Your task to perform on an android device: open sync settings in chrome Image 0: 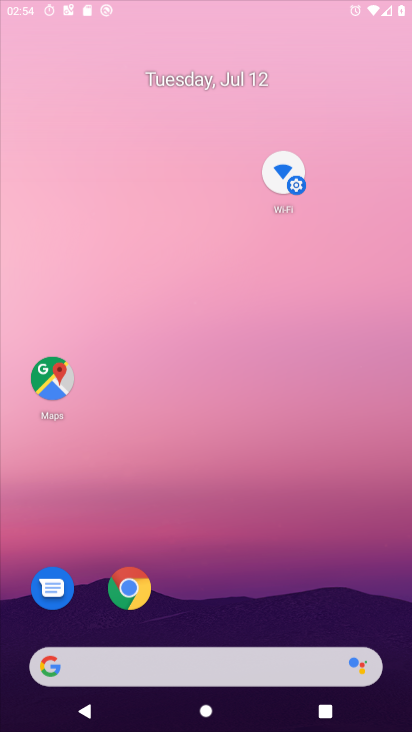
Step 0: click (202, 62)
Your task to perform on an android device: open sync settings in chrome Image 1: 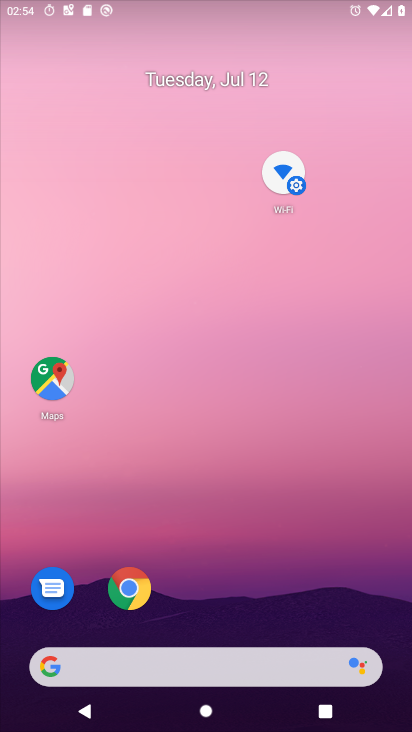
Step 1: drag from (174, 611) to (255, 148)
Your task to perform on an android device: open sync settings in chrome Image 2: 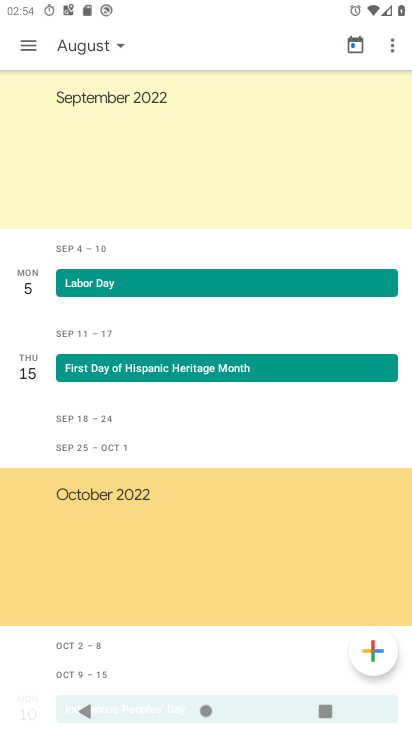
Step 2: press home button
Your task to perform on an android device: open sync settings in chrome Image 3: 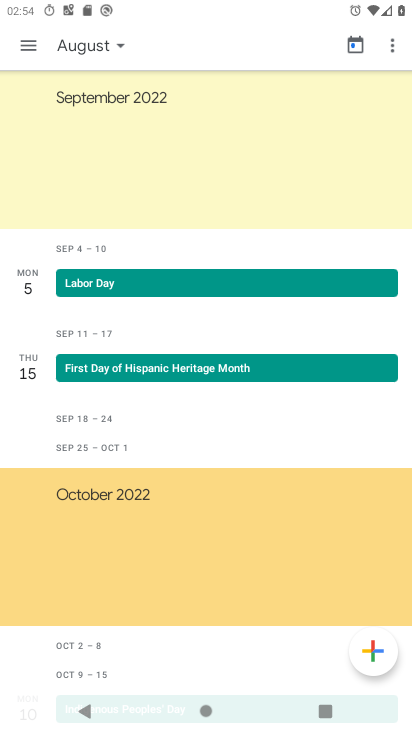
Step 3: drag from (168, 543) to (226, 120)
Your task to perform on an android device: open sync settings in chrome Image 4: 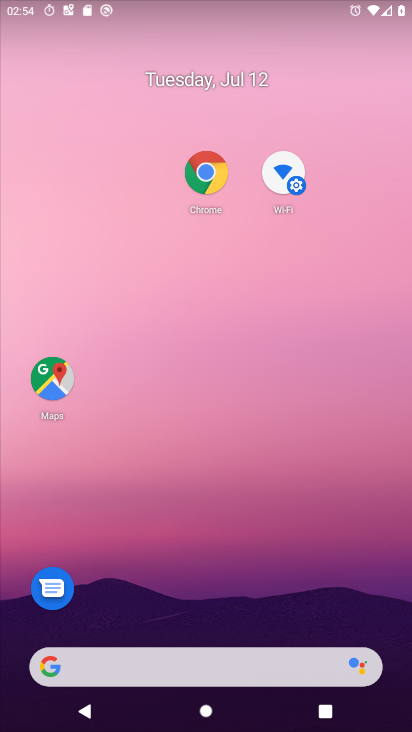
Step 4: drag from (228, 661) to (245, 206)
Your task to perform on an android device: open sync settings in chrome Image 5: 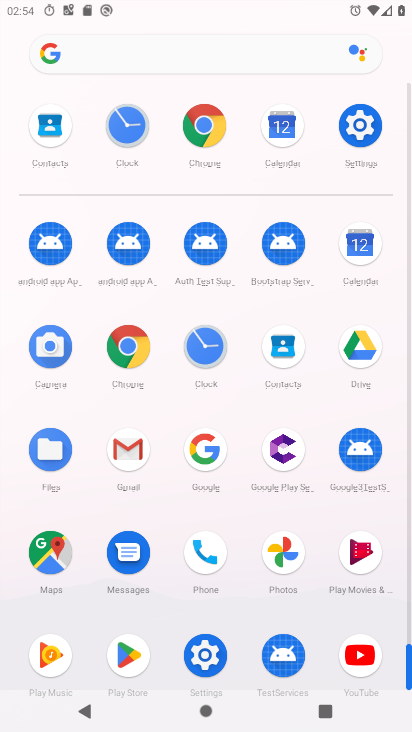
Step 5: click (127, 346)
Your task to perform on an android device: open sync settings in chrome Image 6: 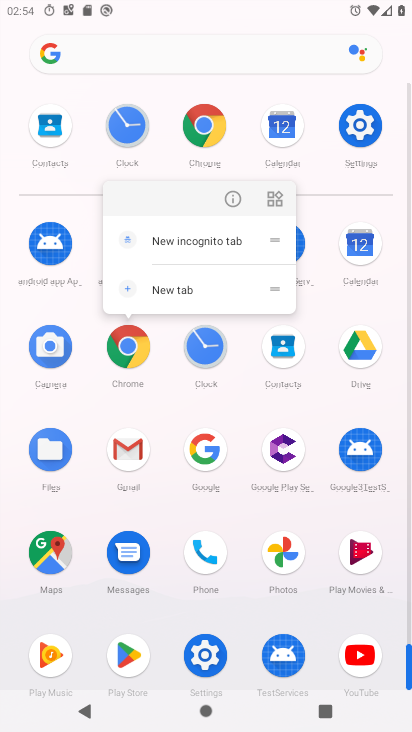
Step 6: click (231, 195)
Your task to perform on an android device: open sync settings in chrome Image 7: 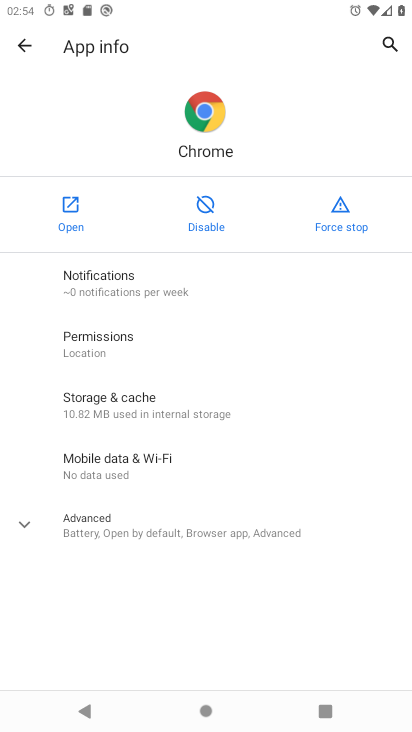
Step 7: click (47, 219)
Your task to perform on an android device: open sync settings in chrome Image 8: 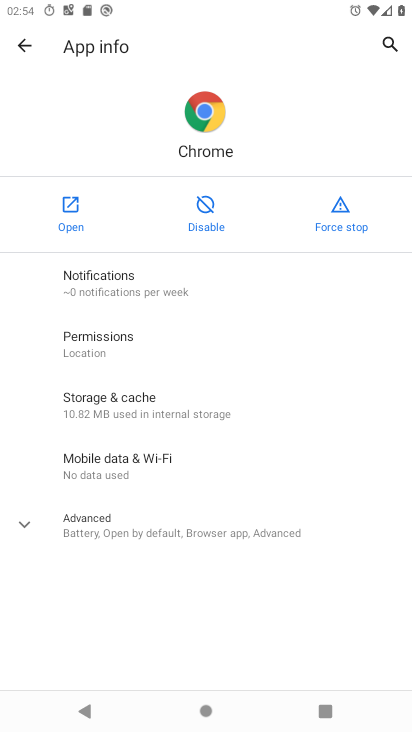
Step 8: click (47, 219)
Your task to perform on an android device: open sync settings in chrome Image 9: 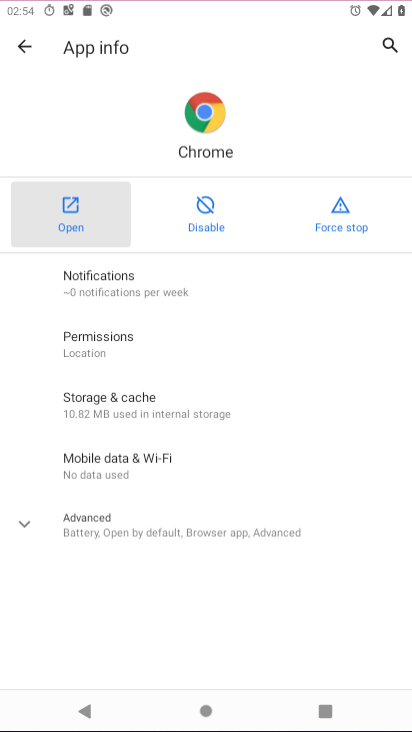
Step 9: click (50, 219)
Your task to perform on an android device: open sync settings in chrome Image 10: 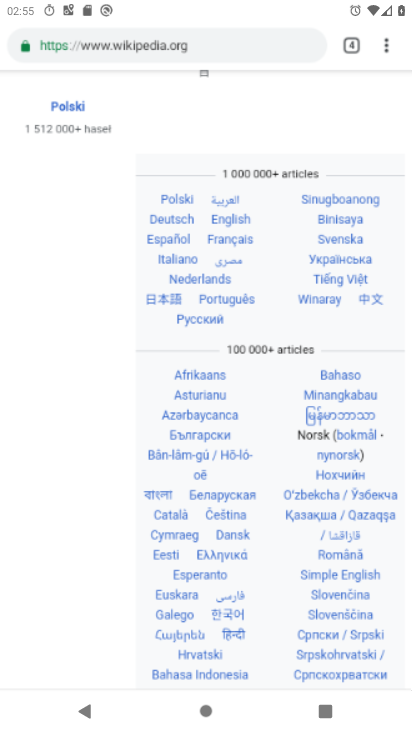
Step 10: drag from (261, 501) to (293, 247)
Your task to perform on an android device: open sync settings in chrome Image 11: 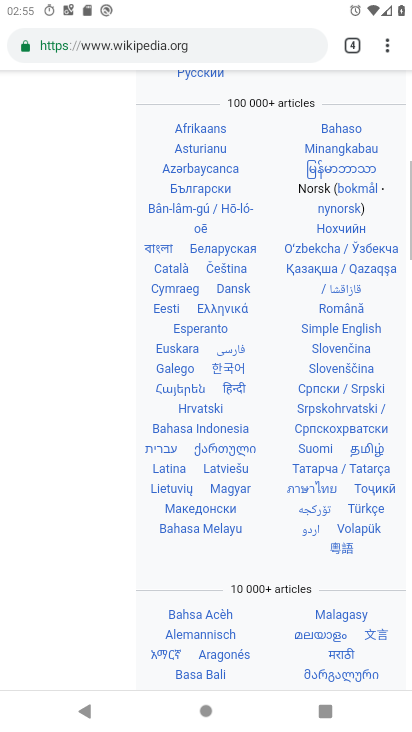
Step 11: drag from (304, 151) to (277, 668)
Your task to perform on an android device: open sync settings in chrome Image 12: 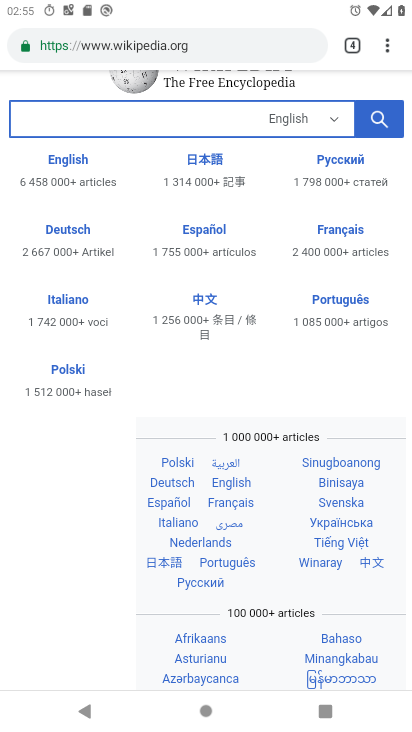
Step 12: drag from (269, 236) to (176, 583)
Your task to perform on an android device: open sync settings in chrome Image 13: 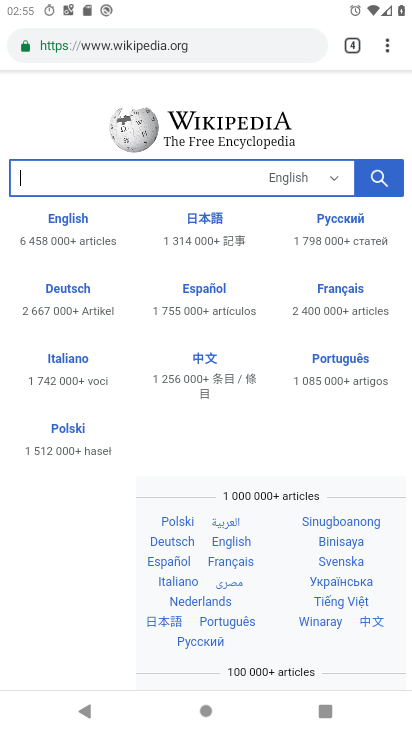
Step 13: click (391, 50)
Your task to perform on an android device: open sync settings in chrome Image 14: 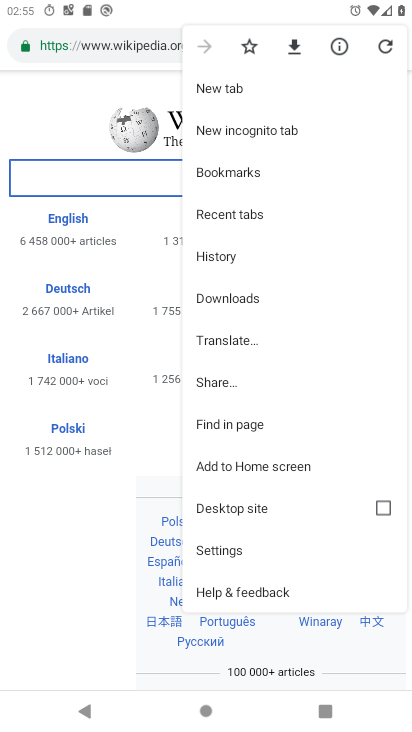
Step 14: click (248, 545)
Your task to perform on an android device: open sync settings in chrome Image 15: 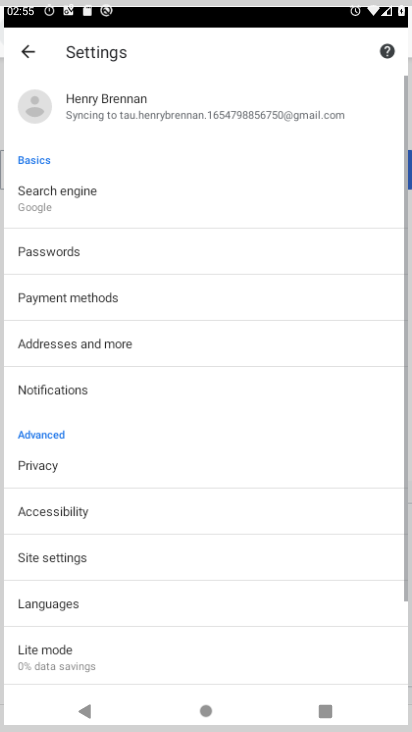
Step 15: drag from (242, 534) to (233, 33)
Your task to perform on an android device: open sync settings in chrome Image 16: 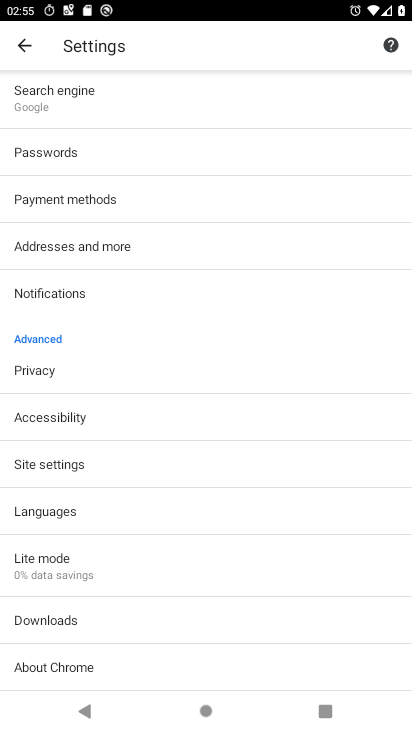
Step 16: click (88, 458)
Your task to perform on an android device: open sync settings in chrome Image 17: 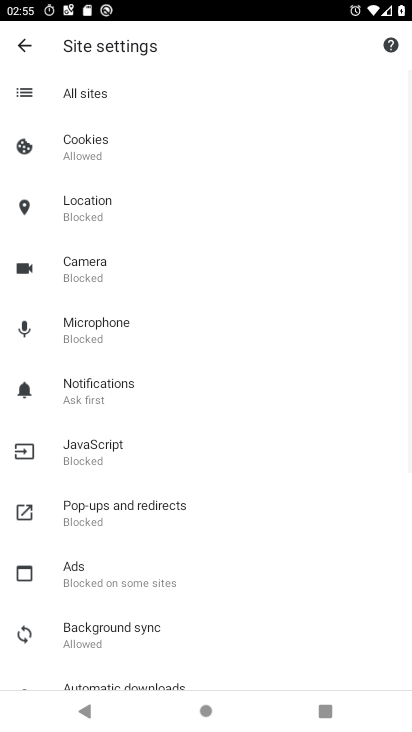
Step 17: drag from (133, 597) to (242, 218)
Your task to perform on an android device: open sync settings in chrome Image 18: 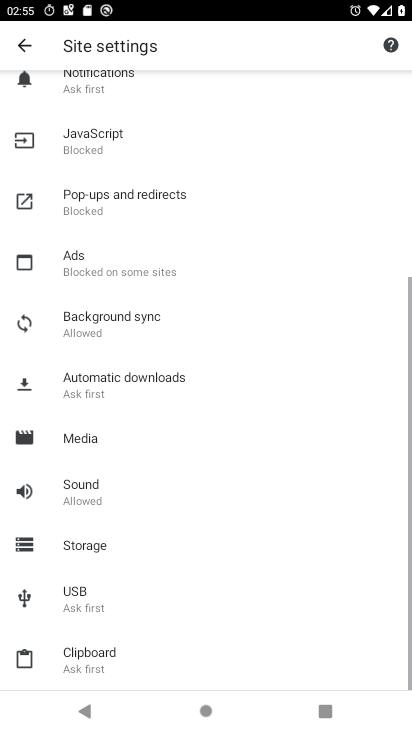
Step 18: click (148, 324)
Your task to perform on an android device: open sync settings in chrome Image 19: 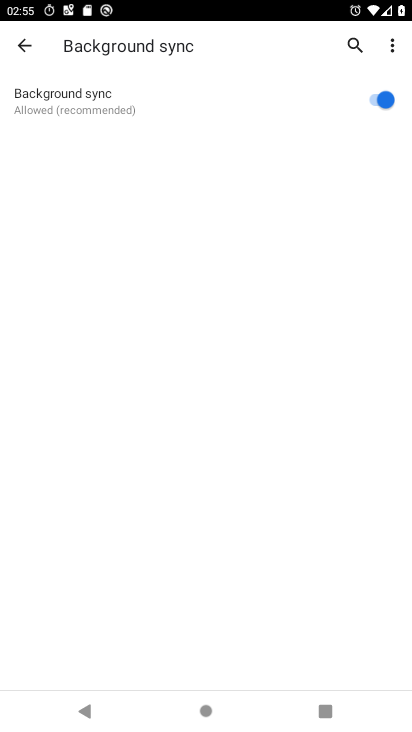
Step 19: task complete